Your task to perform on an android device: find which apps use the phone's location Image 0: 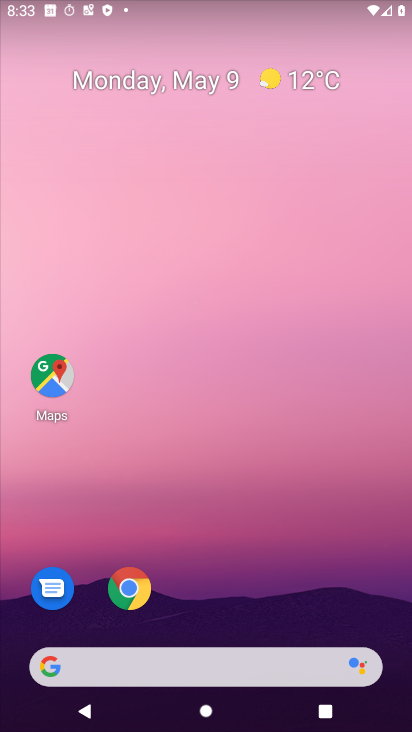
Step 0: drag from (211, 670) to (356, 124)
Your task to perform on an android device: find which apps use the phone's location Image 1: 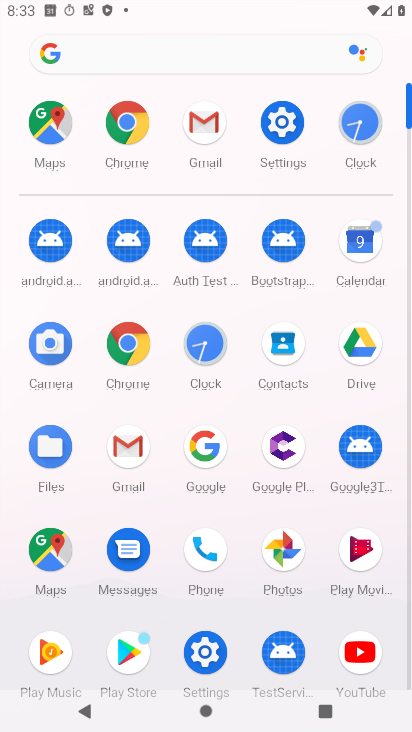
Step 1: click (286, 120)
Your task to perform on an android device: find which apps use the phone's location Image 2: 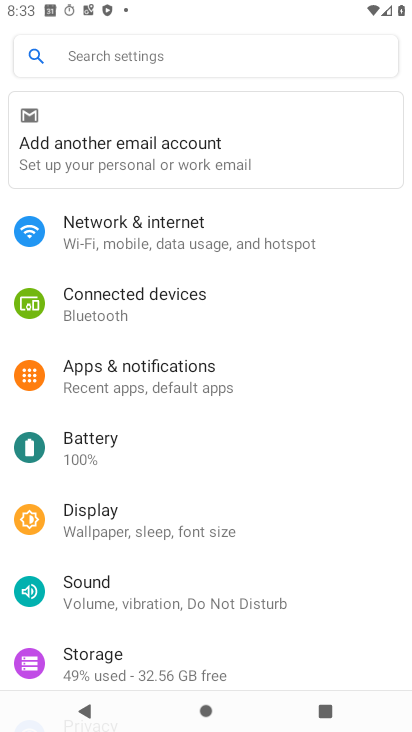
Step 2: drag from (230, 570) to (335, 167)
Your task to perform on an android device: find which apps use the phone's location Image 3: 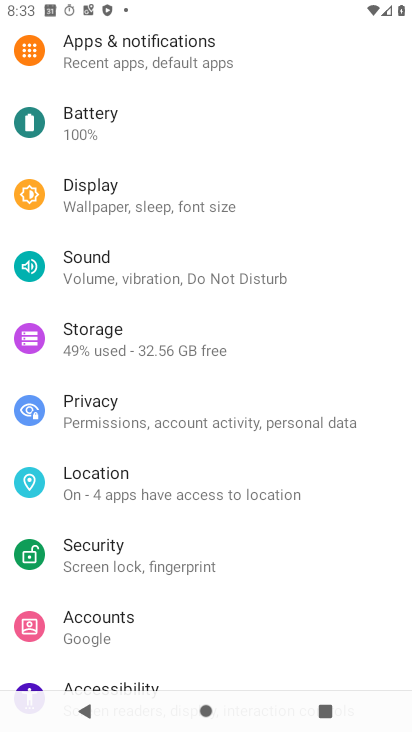
Step 3: click (146, 489)
Your task to perform on an android device: find which apps use the phone's location Image 4: 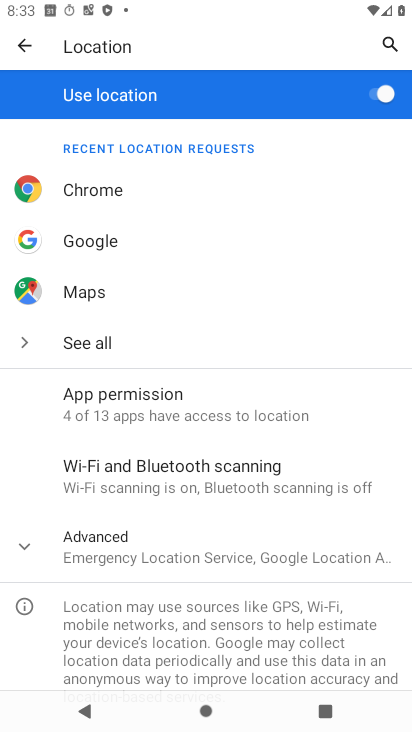
Step 4: click (113, 538)
Your task to perform on an android device: find which apps use the phone's location Image 5: 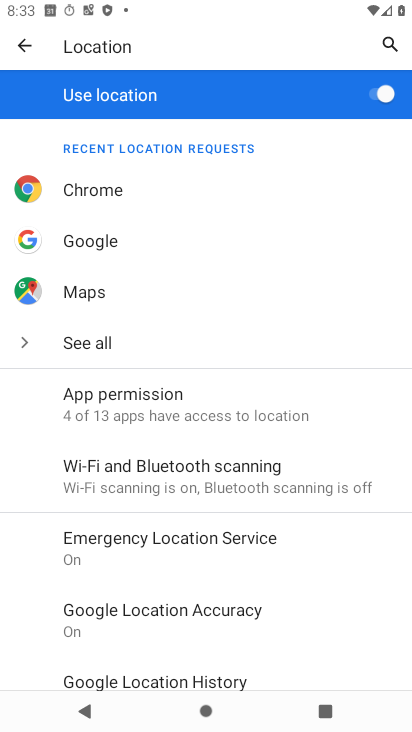
Step 5: click (93, 397)
Your task to perform on an android device: find which apps use the phone's location Image 6: 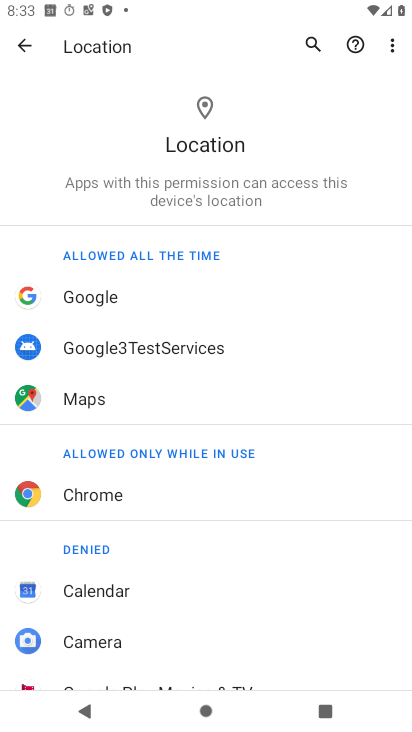
Step 6: drag from (168, 619) to (308, 154)
Your task to perform on an android device: find which apps use the phone's location Image 7: 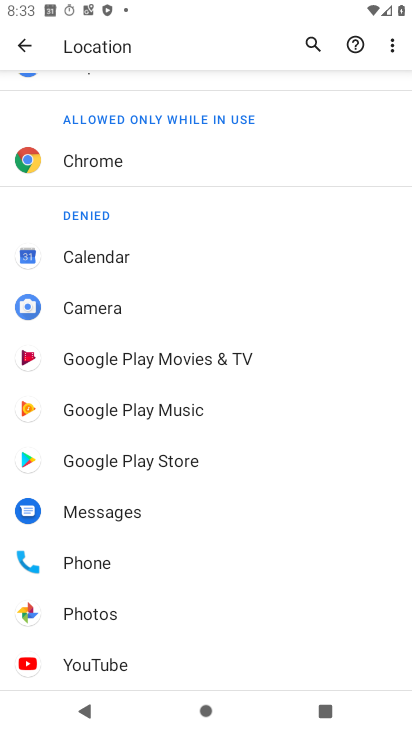
Step 7: click (92, 564)
Your task to perform on an android device: find which apps use the phone's location Image 8: 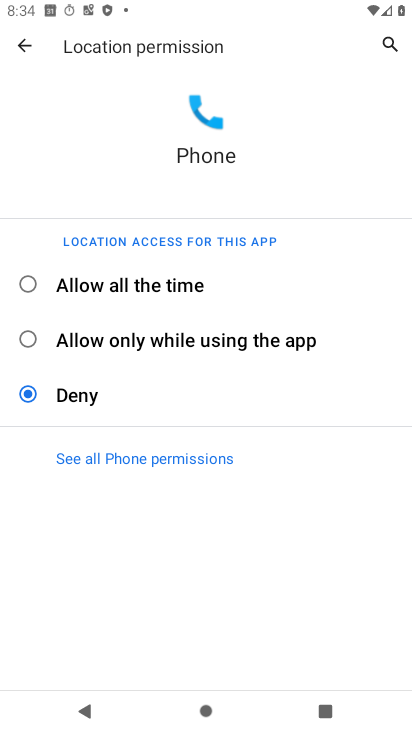
Step 8: task complete